Your task to perform on an android device: Search for seafood restaurants on Google Maps Image 0: 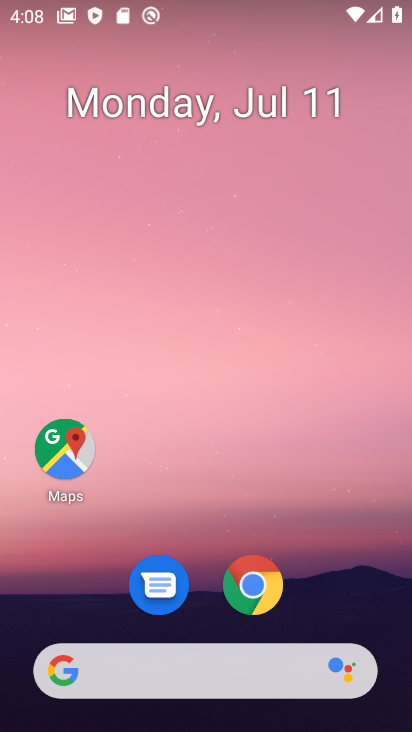
Step 0: click (57, 437)
Your task to perform on an android device: Search for seafood restaurants on Google Maps Image 1: 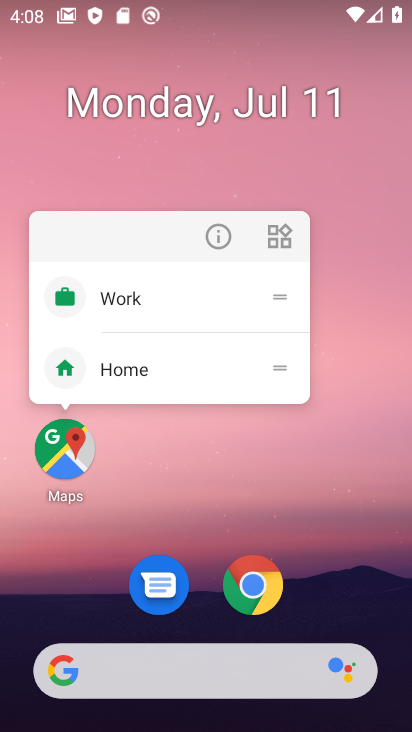
Step 1: click (57, 437)
Your task to perform on an android device: Search for seafood restaurants on Google Maps Image 2: 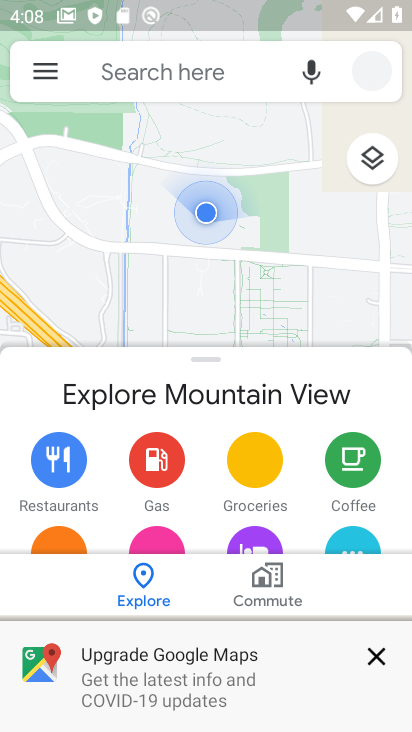
Step 2: click (209, 63)
Your task to perform on an android device: Search for seafood restaurants on Google Maps Image 3: 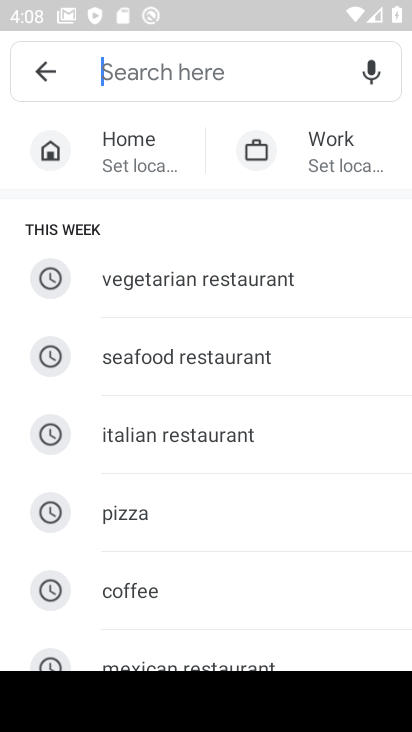
Step 3: click (183, 360)
Your task to perform on an android device: Search for seafood restaurants on Google Maps Image 4: 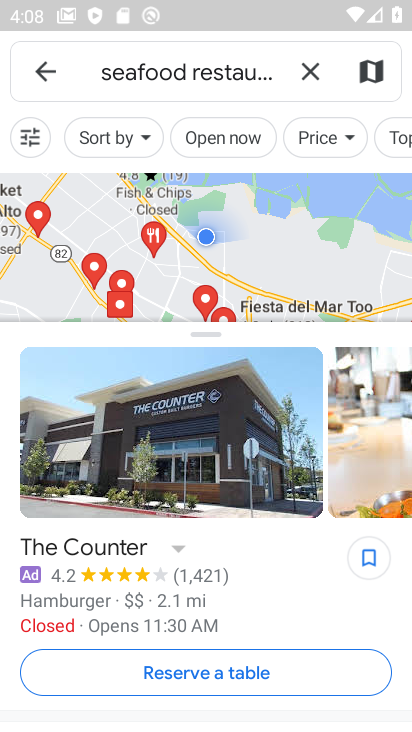
Step 4: task complete